Your task to perform on an android device: Go to CNN.com Image 0: 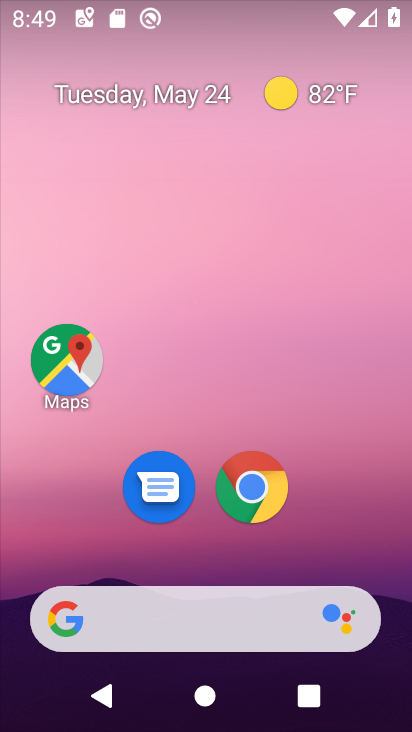
Step 0: drag from (330, 513) to (273, 89)
Your task to perform on an android device: Go to CNN.com Image 1: 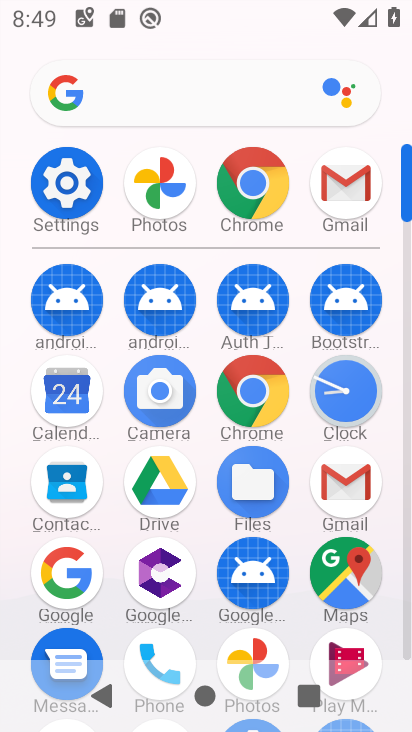
Step 1: click (239, 383)
Your task to perform on an android device: Go to CNN.com Image 2: 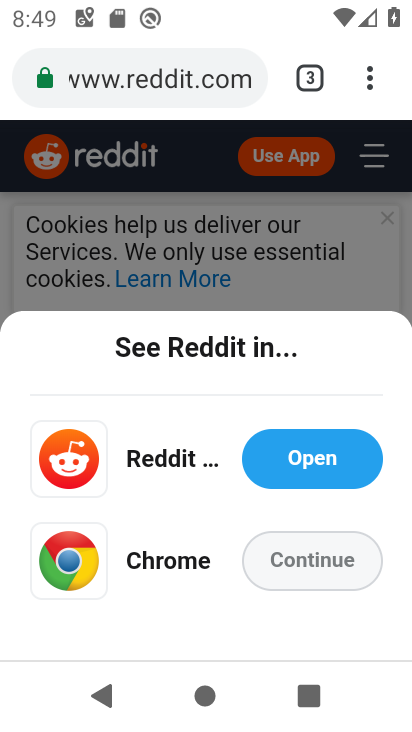
Step 2: click (194, 75)
Your task to perform on an android device: Go to CNN.com Image 3: 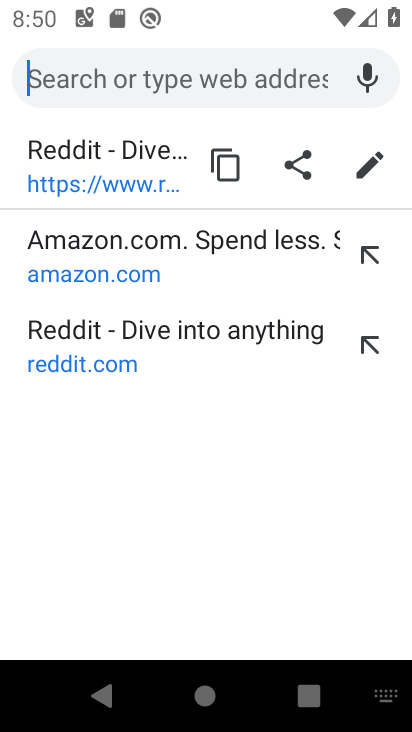
Step 3: type "cnn.com"
Your task to perform on an android device: Go to CNN.com Image 4: 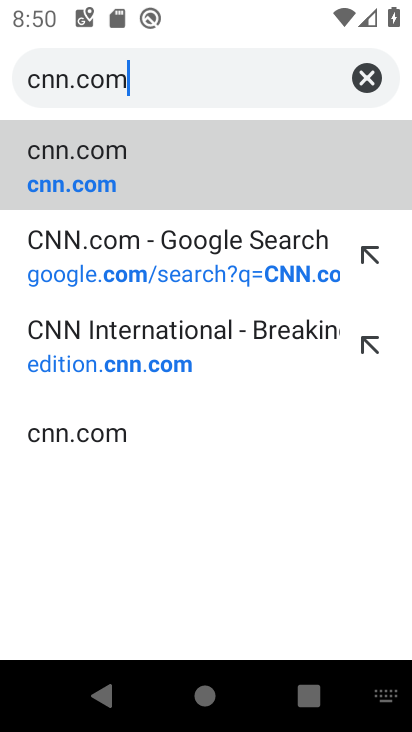
Step 4: click (166, 171)
Your task to perform on an android device: Go to CNN.com Image 5: 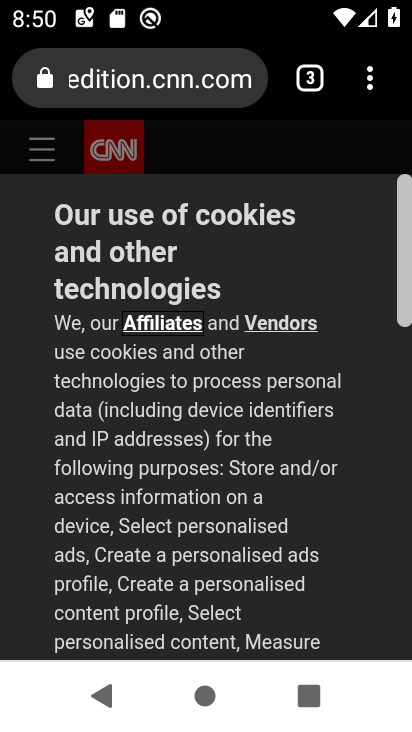
Step 5: task complete